Your task to perform on an android device: turn on bluetooth scan Image 0: 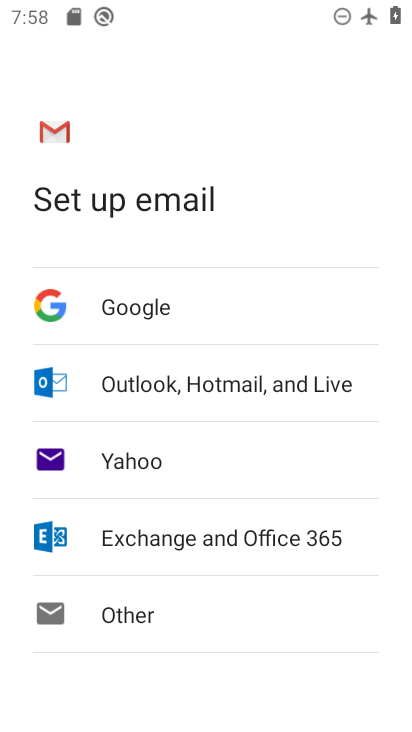
Step 0: press home button
Your task to perform on an android device: turn on bluetooth scan Image 1: 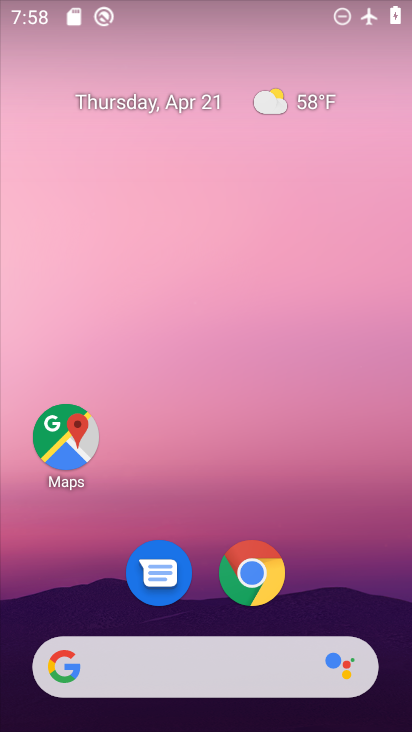
Step 1: drag from (173, 630) to (224, 285)
Your task to perform on an android device: turn on bluetooth scan Image 2: 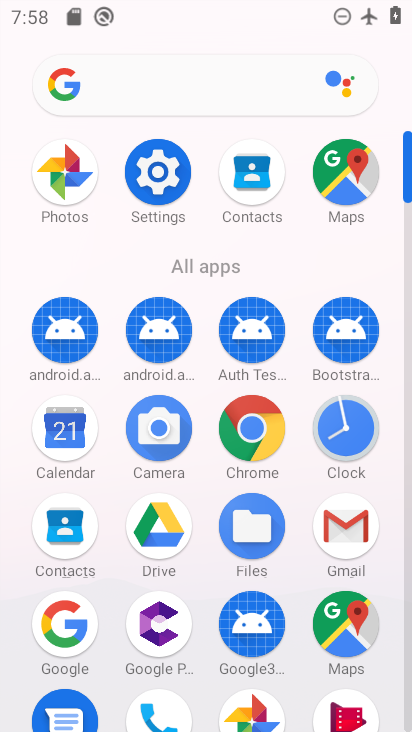
Step 2: click (156, 164)
Your task to perform on an android device: turn on bluetooth scan Image 3: 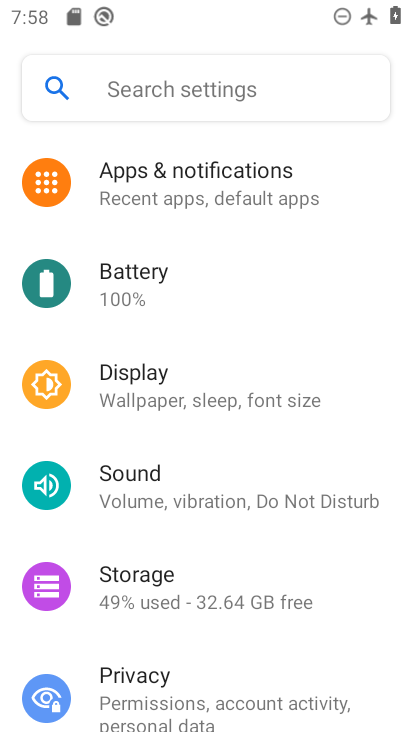
Step 3: drag from (168, 682) to (220, 415)
Your task to perform on an android device: turn on bluetooth scan Image 4: 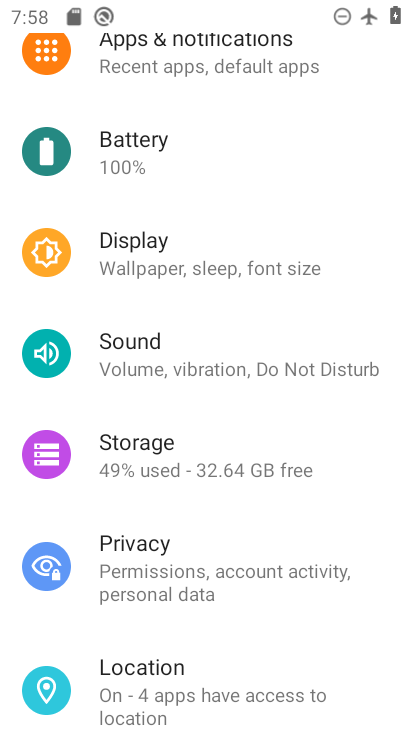
Step 4: click (186, 686)
Your task to perform on an android device: turn on bluetooth scan Image 5: 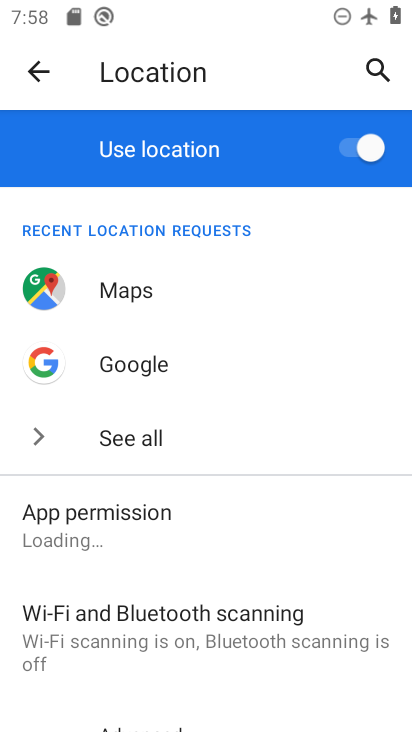
Step 5: click (159, 636)
Your task to perform on an android device: turn on bluetooth scan Image 6: 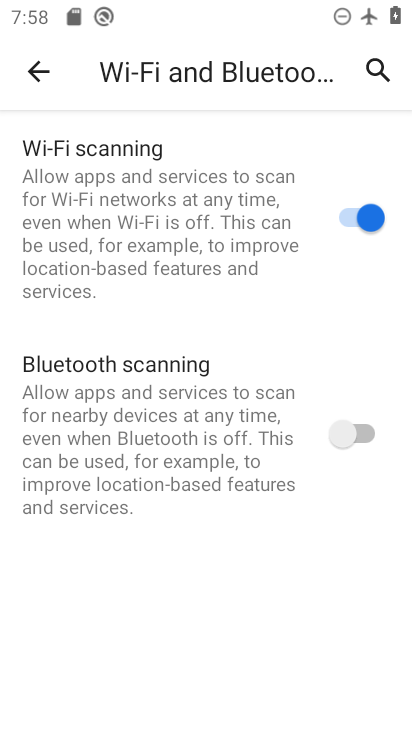
Step 6: click (363, 430)
Your task to perform on an android device: turn on bluetooth scan Image 7: 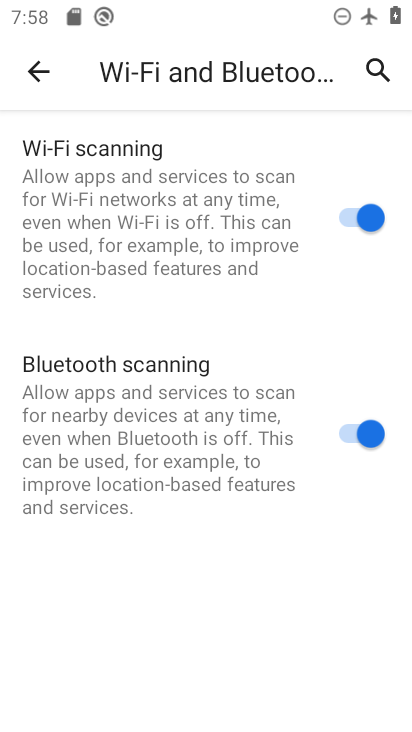
Step 7: task complete